Your task to perform on an android device: Go to battery settings Image 0: 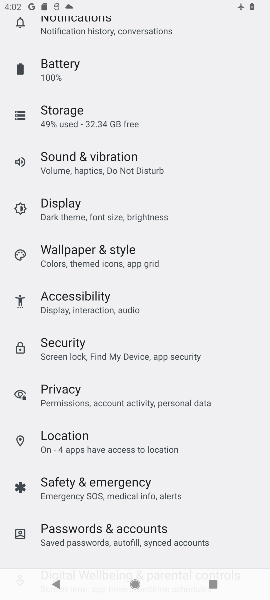
Step 0: click (60, 69)
Your task to perform on an android device: Go to battery settings Image 1: 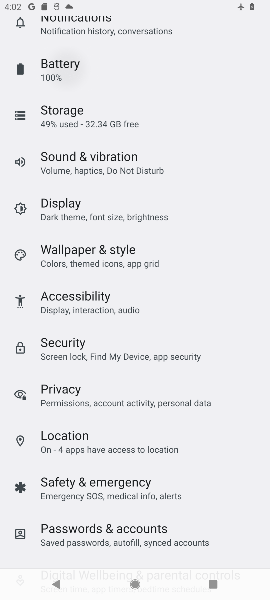
Step 1: click (56, 70)
Your task to perform on an android device: Go to battery settings Image 2: 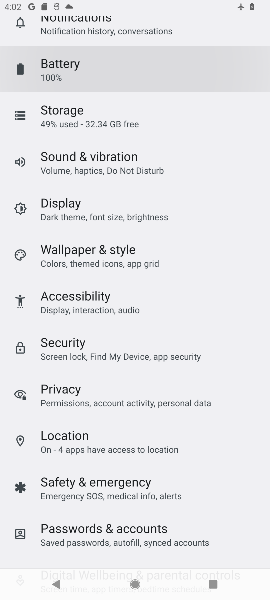
Step 2: click (56, 70)
Your task to perform on an android device: Go to battery settings Image 3: 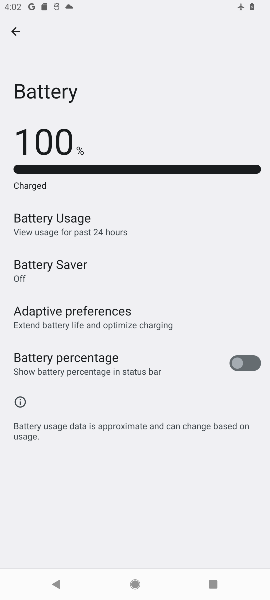
Step 3: task complete